Your task to perform on an android device: View the shopping cart on amazon.com. Search for "acer nitro" on amazon.com, select the first entry, add it to the cart, then select checkout. Image 0: 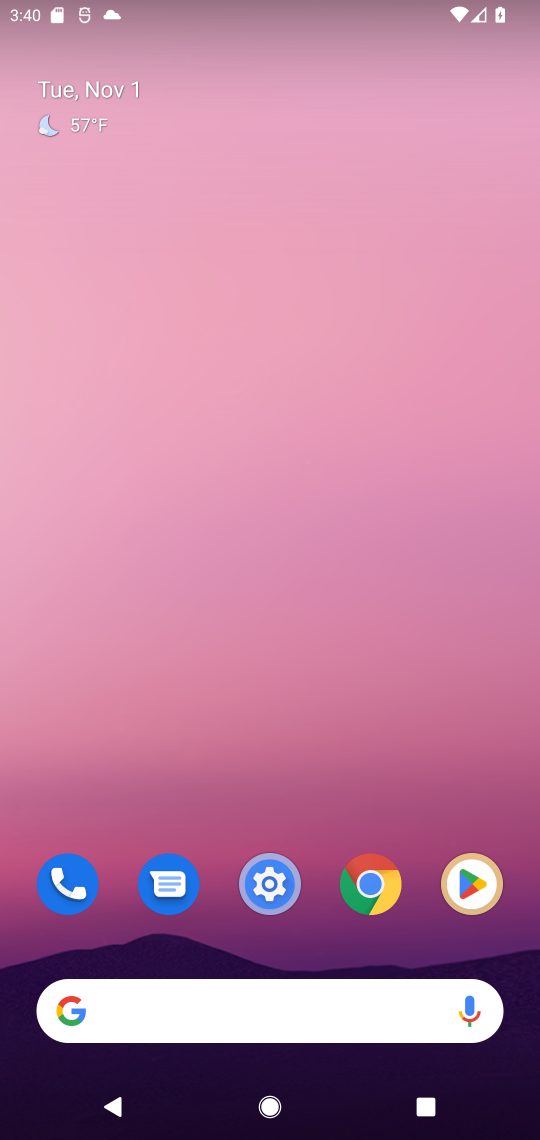
Step 0: press home button
Your task to perform on an android device: View the shopping cart on amazon.com. Search for "acer nitro" on amazon.com, select the first entry, add it to the cart, then select checkout. Image 1: 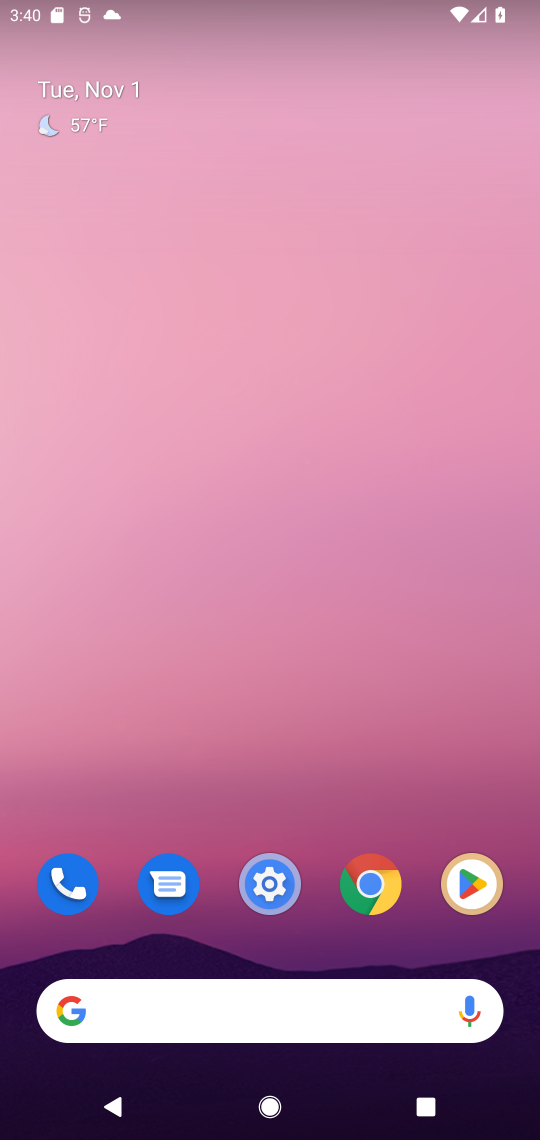
Step 1: click (113, 1012)
Your task to perform on an android device: View the shopping cart on amazon.com. Search for "acer nitro" on amazon.com, select the first entry, add it to the cart, then select checkout. Image 2: 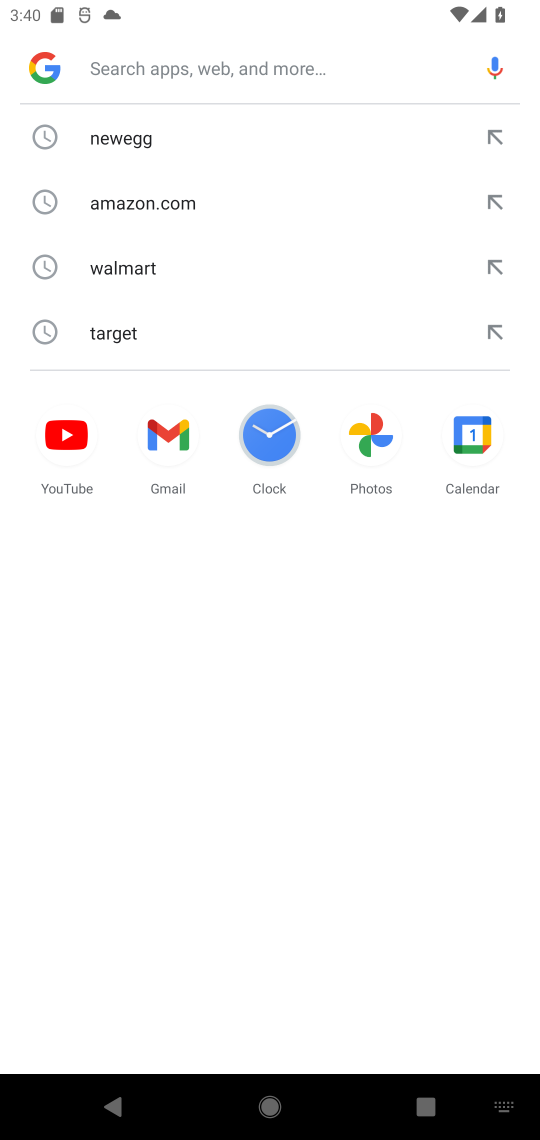
Step 2: type "amazon.com"
Your task to perform on an android device: View the shopping cart on amazon.com. Search for "acer nitro" on amazon.com, select the first entry, add it to the cart, then select checkout. Image 3: 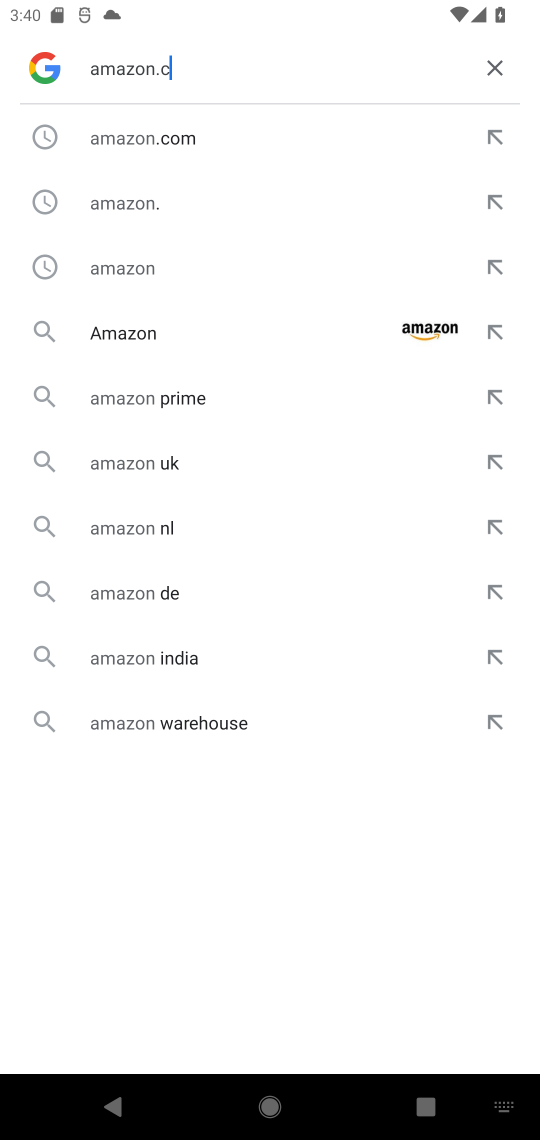
Step 3: press enter
Your task to perform on an android device: View the shopping cart on amazon.com. Search for "acer nitro" on amazon.com, select the first entry, add it to the cart, then select checkout. Image 4: 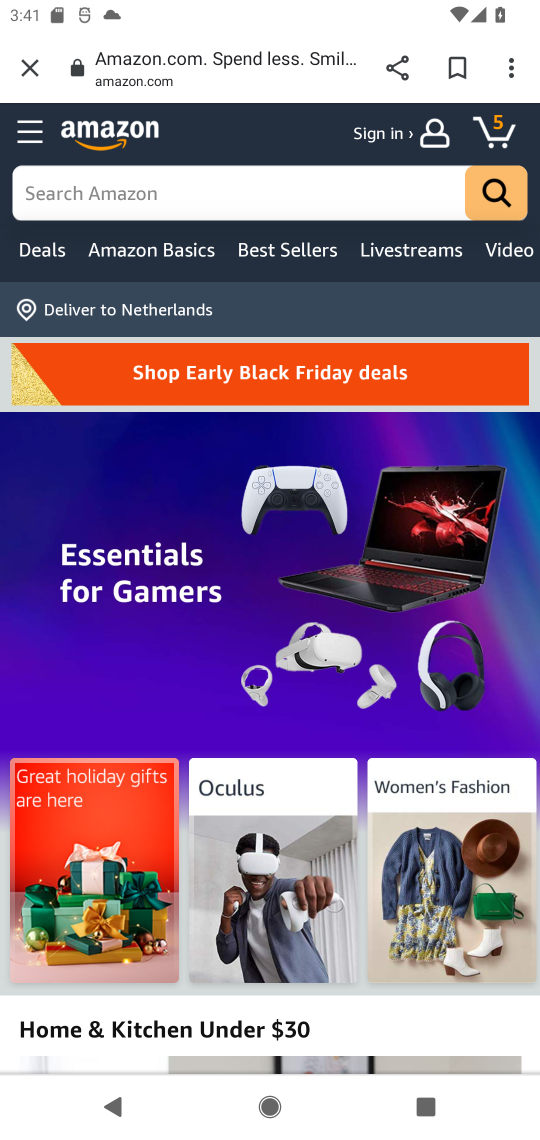
Step 4: click (497, 132)
Your task to perform on an android device: View the shopping cart on amazon.com. Search for "acer nitro" on amazon.com, select the first entry, add it to the cart, then select checkout. Image 5: 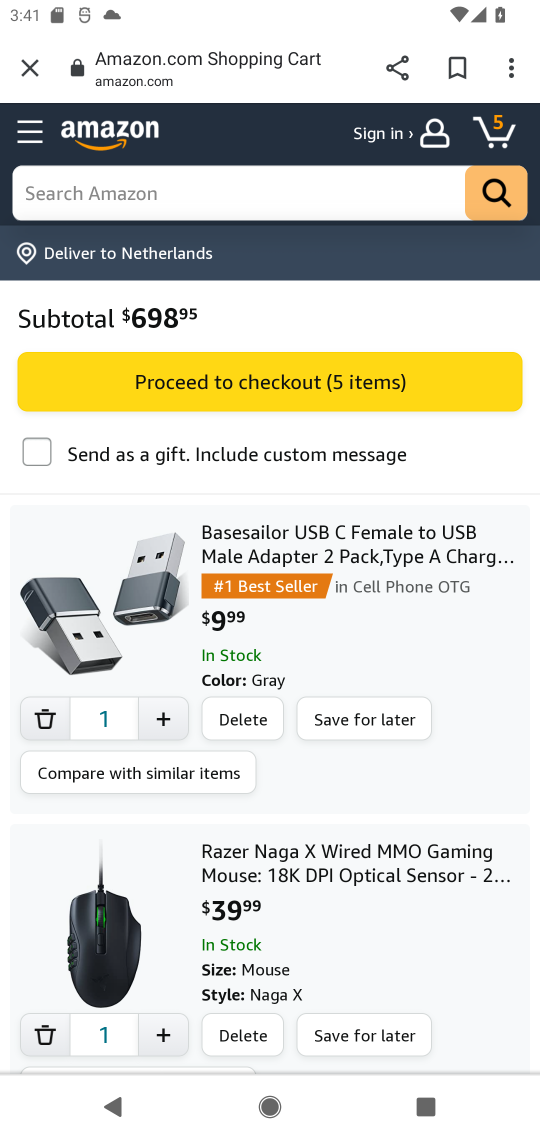
Step 5: click (155, 200)
Your task to perform on an android device: View the shopping cart on amazon.com. Search for "acer nitro" on amazon.com, select the first entry, add it to the cart, then select checkout. Image 6: 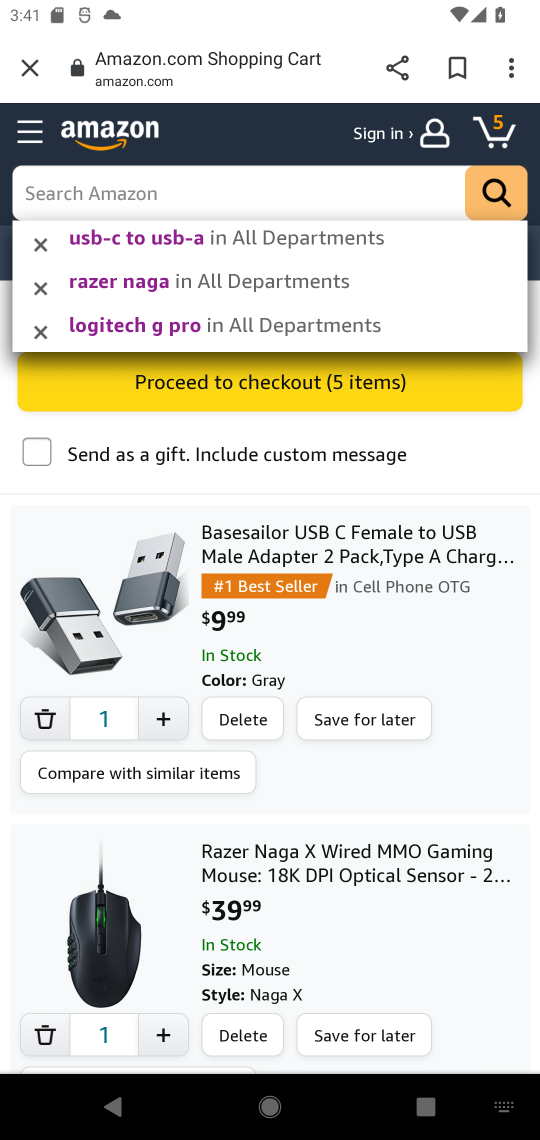
Step 6: type "acer nitro"
Your task to perform on an android device: View the shopping cart on amazon.com. Search for "acer nitro" on amazon.com, select the first entry, add it to the cart, then select checkout. Image 7: 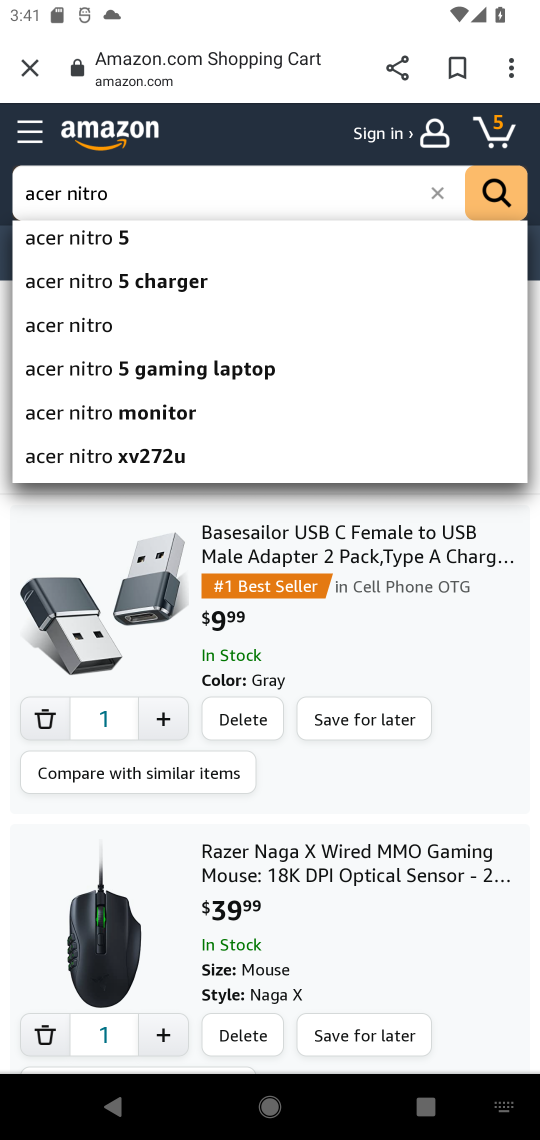
Step 7: click (493, 186)
Your task to perform on an android device: View the shopping cart on amazon.com. Search for "acer nitro" on amazon.com, select the first entry, add it to the cart, then select checkout. Image 8: 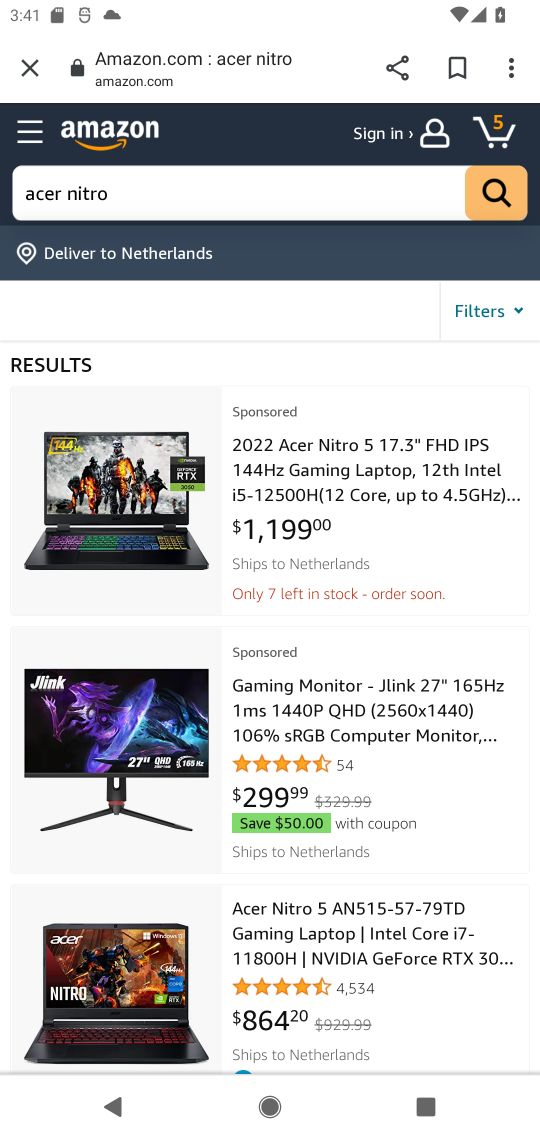
Step 8: click (288, 463)
Your task to perform on an android device: View the shopping cart on amazon.com. Search for "acer nitro" on amazon.com, select the first entry, add it to the cart, then select checkout. Image 9: 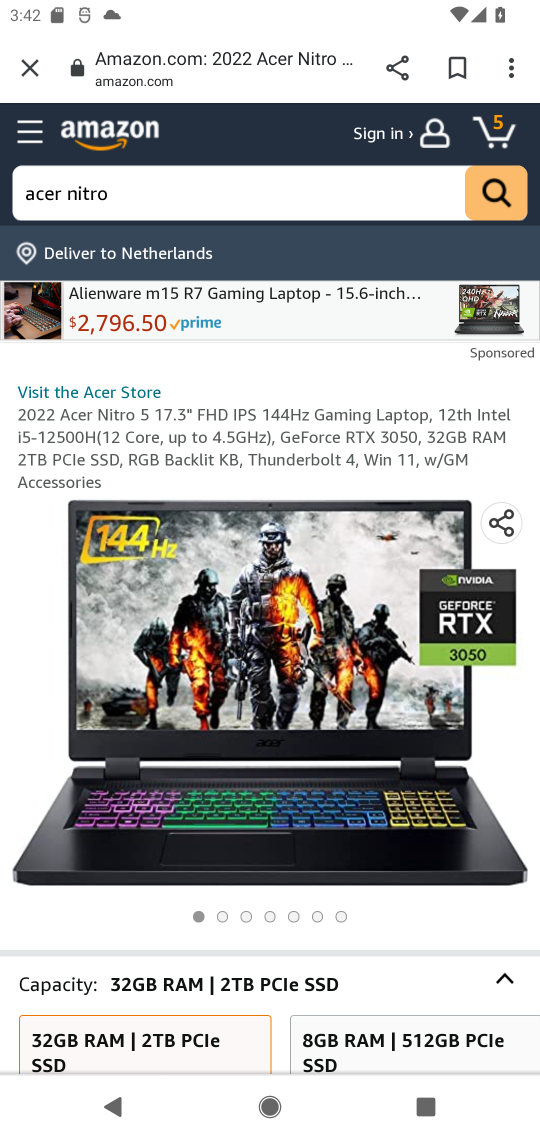
Step 9: drag from (244, 860) to (242, 366)
Your task to perform on an android device: View the shopping cart on amazon.com. Search for "acer nitro" on amazon.com, select the first entry, add it to the cart, then select checkout. Image 10: 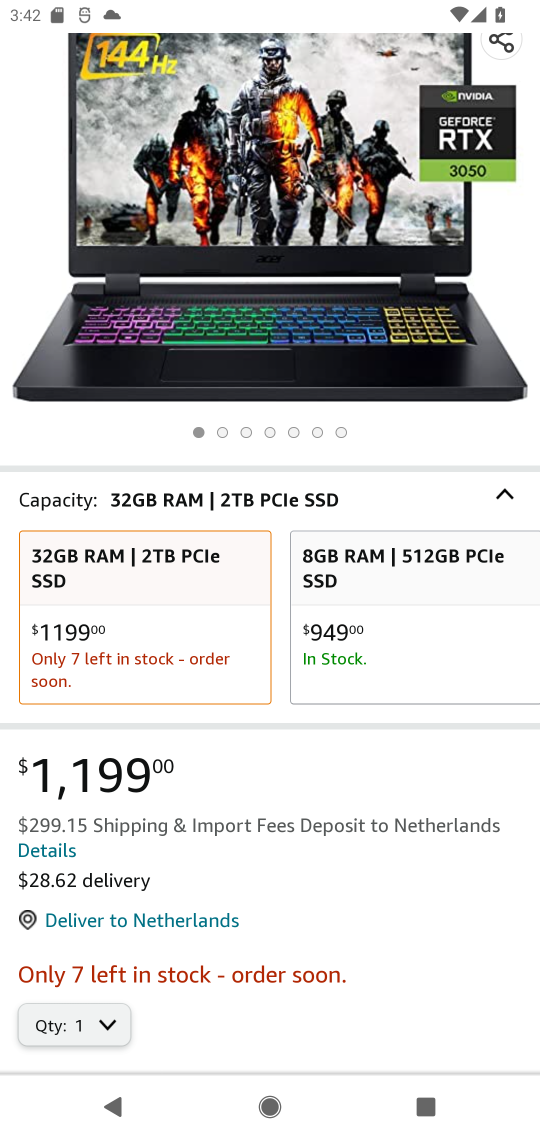
Step 10: drag from (237, 814) to (238, 270)
Your task to perform on an android device: View the shopping cart on amazon.com. Search for "acer nitro" on amazon.com, select the first entry, add it to the cart, then select checkout. Image 11: 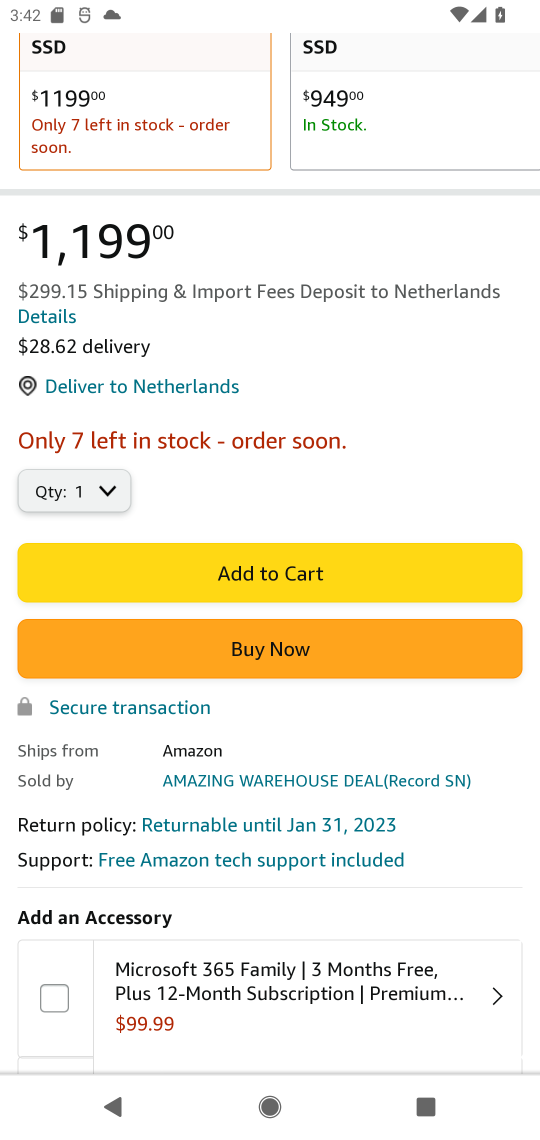
Step 11: click (212, 570)
Your task to perform on an android device: View the shopping cart on amazon.com. Search for "acer nitro" on amazon.com, select the first entry, add it to the cart, then select checkout. Image 12: 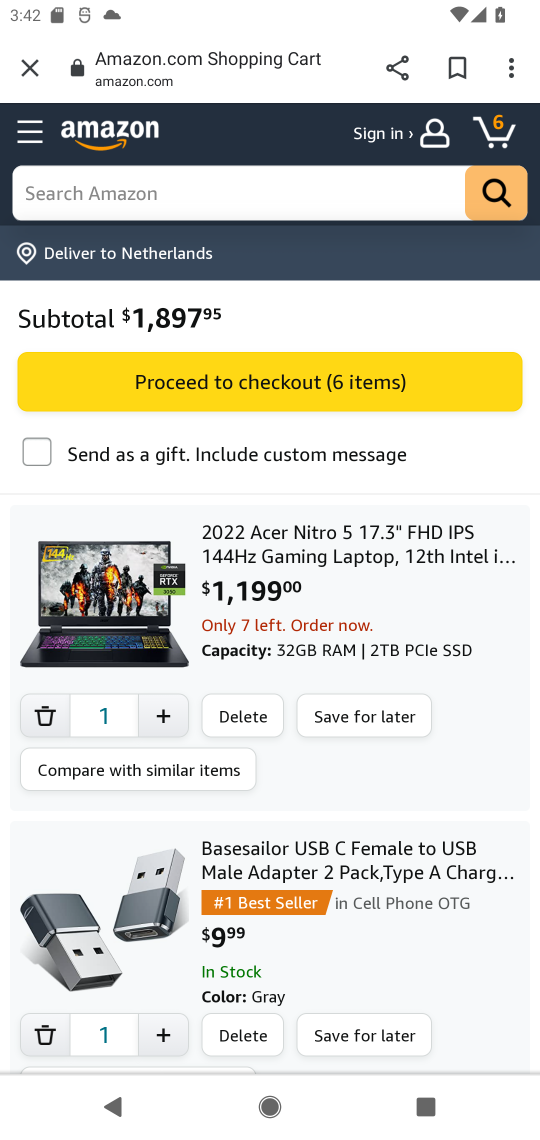
Step 12: click (300, 379)
Your task to perform on an android device: View the shopping cart on amazon.com. Search for "acer nitro" on amazon.com, select the first entry, add it to the cart, then select checkout. Image 13: 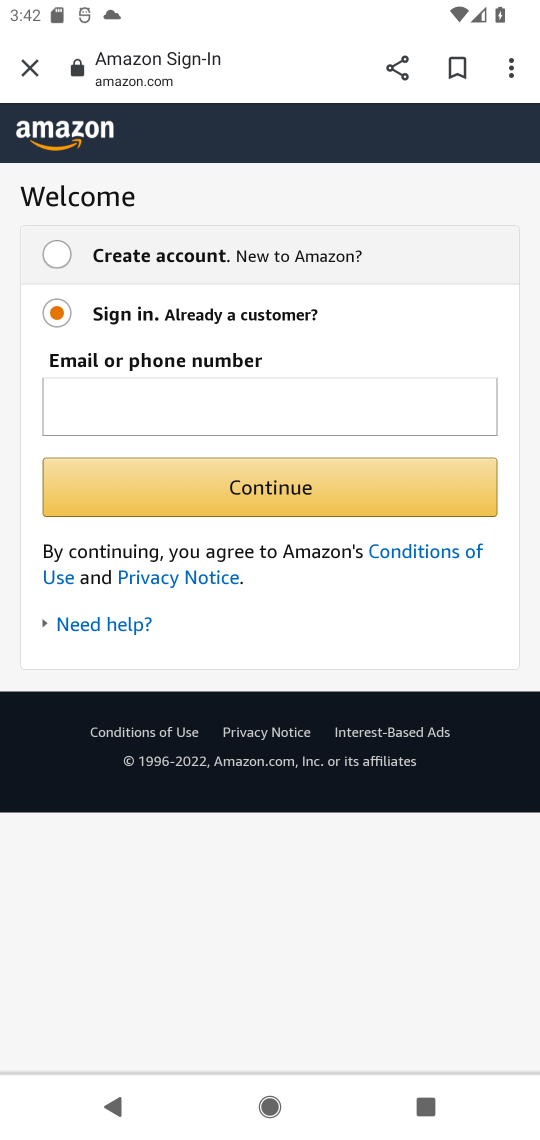
Step 13: task complete